Your task to perform on an android device: open a bookmark in the chrome app Image 0: 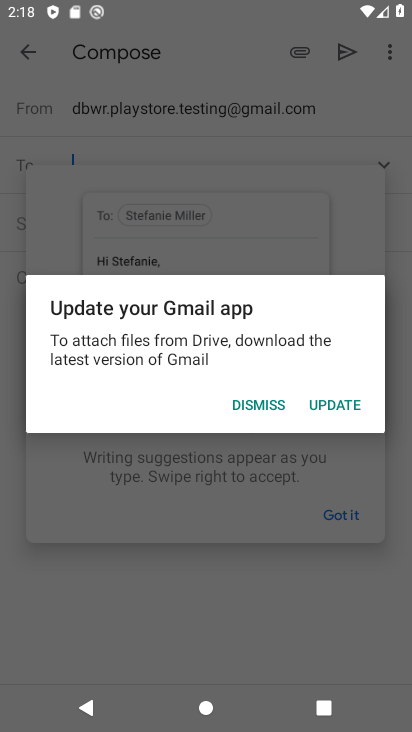
Step 0: press home button
Your task to perform on an android device: open a bookmark in the chrome app Image 1: 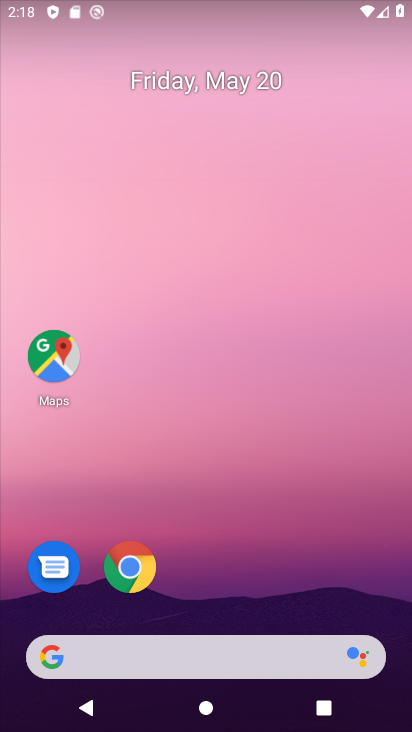
Step 1: click (139, 583)
Your task to perform on an android device: open a bookmark in the chrome app Image 2: 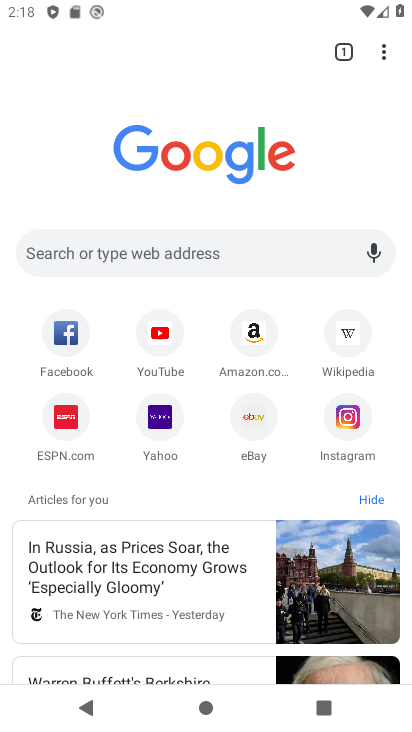
Step 2: click (386, 46)
Your task to perform on an android device: open a bookmark in the chrome app Image 3: 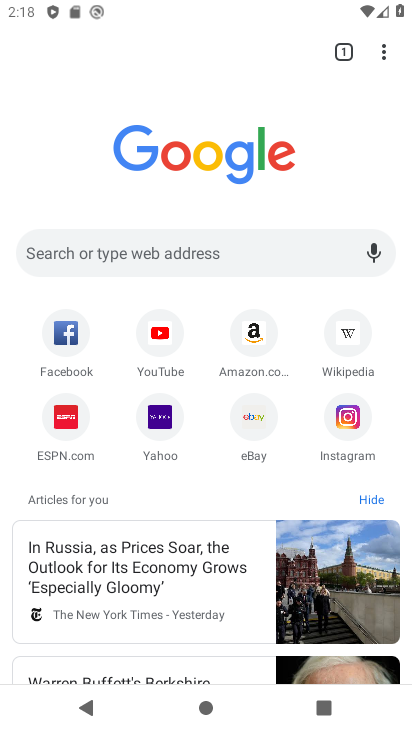
Step 3: click (383, 54)
Your task to perform on an android device: open a bookmark in the chrome app Image 4: 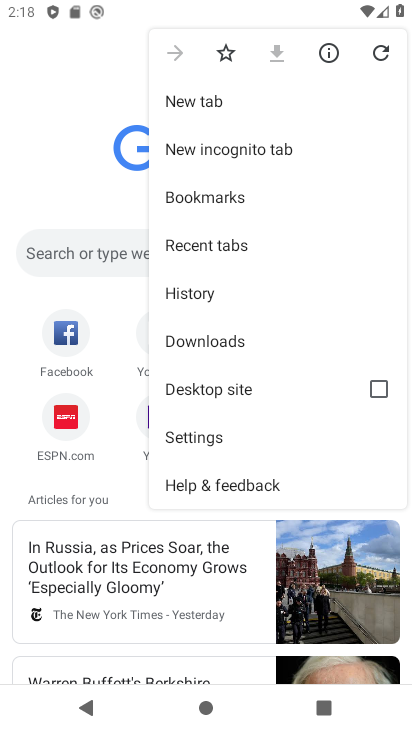
Step 4: click (208, 439)
Your task to perform on an android device: open a bookmark in the chrome app Image 5: 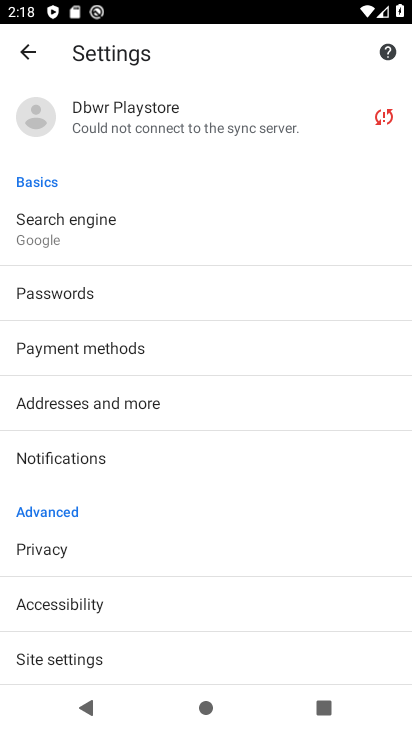
Step 5: click (18, 50)
Your task to perform on an android device: open a bookmark in the chrome app Image 6: 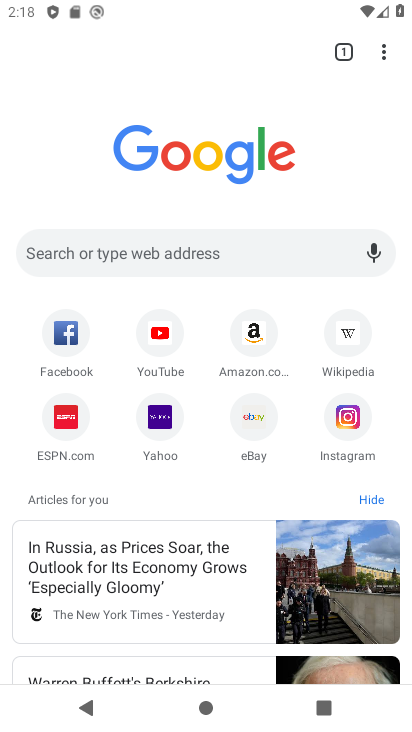
Step 6: click (381, 50)
Your task to perform on an android device: open a bookmark in the chrome app Image 7: 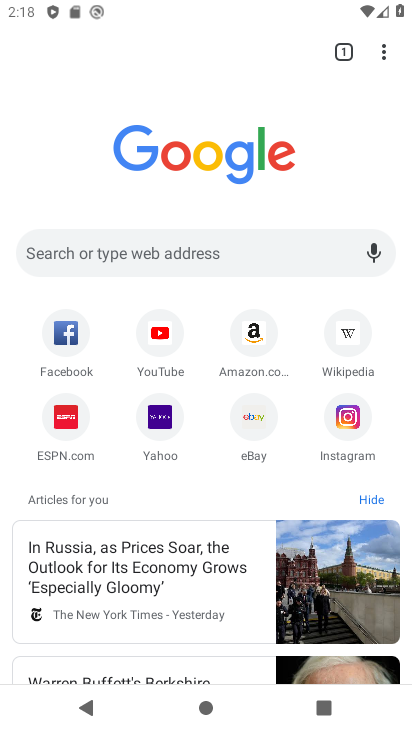
Step 7: click (389, 53)
Your task to perform on an android device: open a bookmark in the chrome app Image 8: 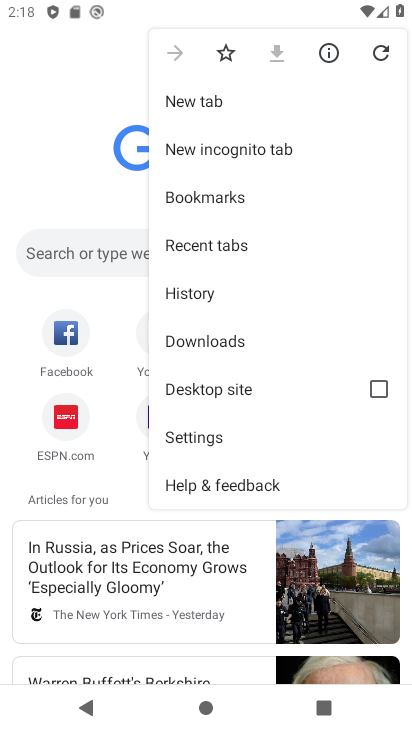
Step 8: click (202, 199)
Your task to perform on an android device: open a bookmark in the chrome app Image 9: 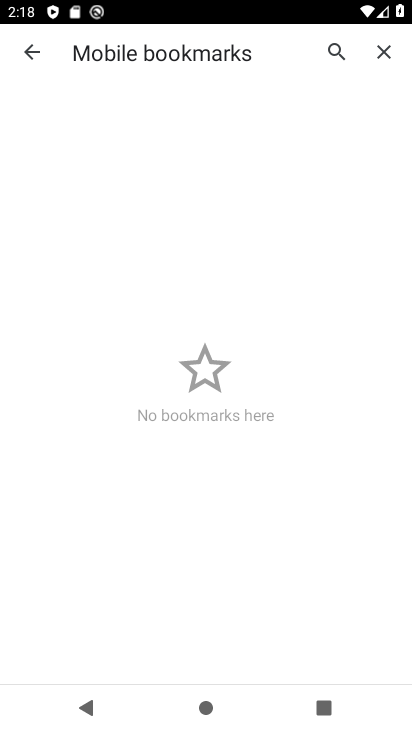
Step 9: task complete